Your task to perform on an android device: toggle wifi Image 0: 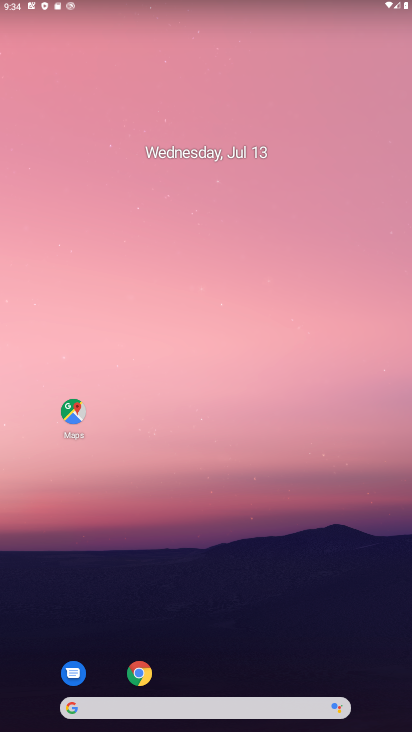
Step 0: drag from (138, 7) to (222, 685)
Your task to perform on an android device: toggle wifi Image 1: 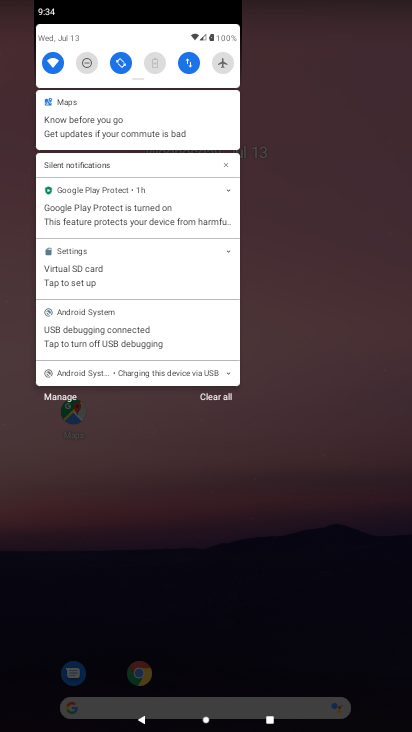
Step 1: click (62, 70)
Your task to perform on an android device: toggle wifi Image 2: 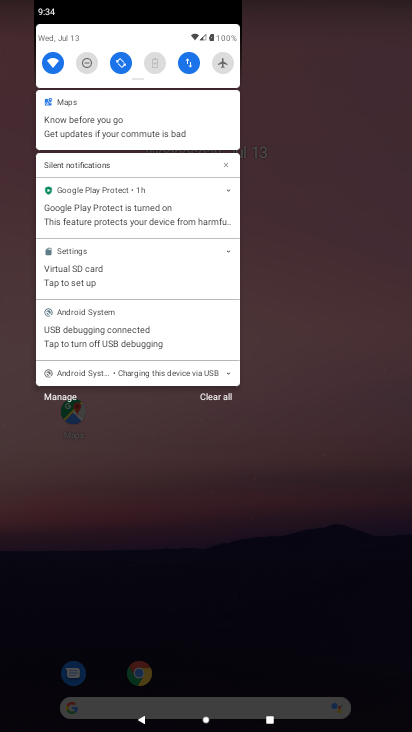
Step 2: click (62, 70)
Your task to perform on an android device: toggle wifi Image 3: 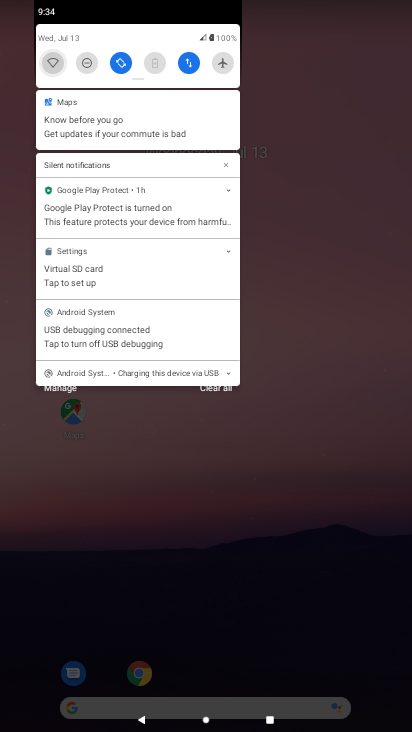
Step 3: click (62, 70)
Your task to perform on an android device: toggle wifi Image 4: 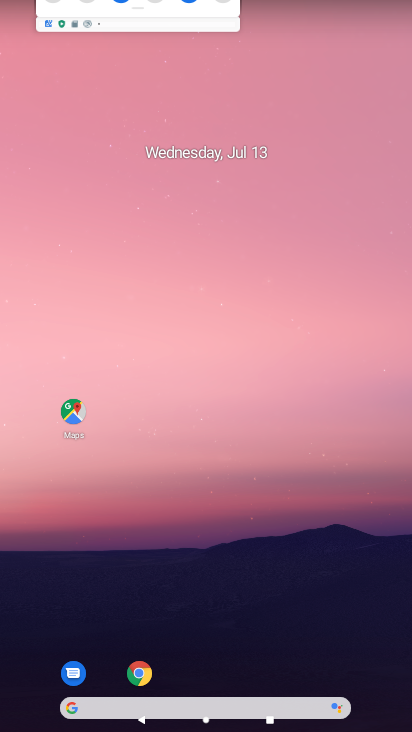
Step 4: click (62, 70)
Your task to perform on an android device: toggle wifi Image 5: 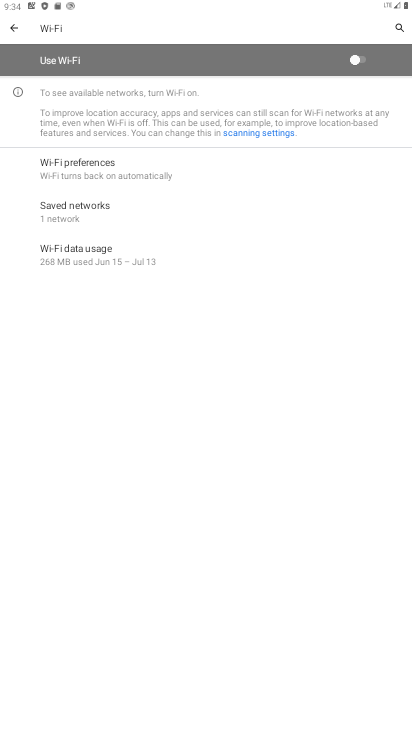
Step 5: click (365, 56)
Your task to perform on an android device: toggle wifi Image 6: 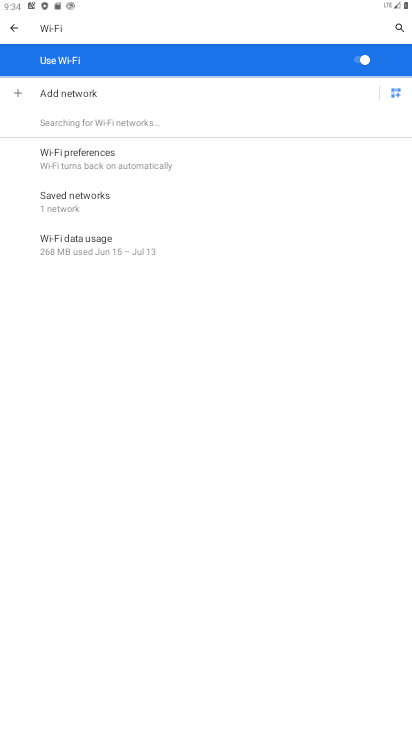
Step 6: task complete